Your task to perform on an android device: toggle airplane mode Image 0: 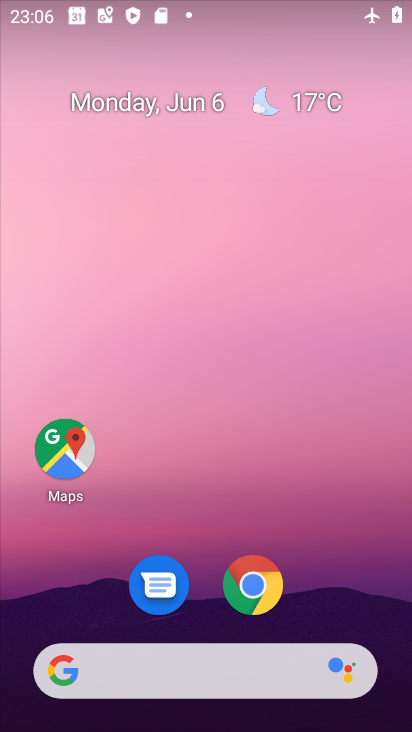
Step 0: drag from (274, 444) to (294, 0)
Your task to perform on an android device: toggle airplane mode Image 1: 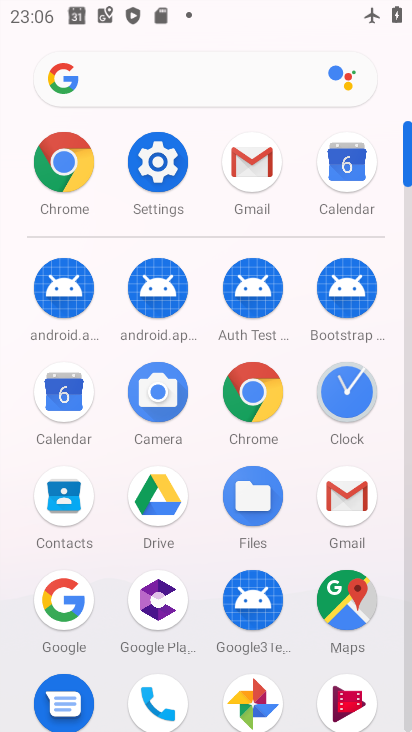
Step 1: click (170, 149)
Your task to perform on an android device: toggle airplane mode Image 2: 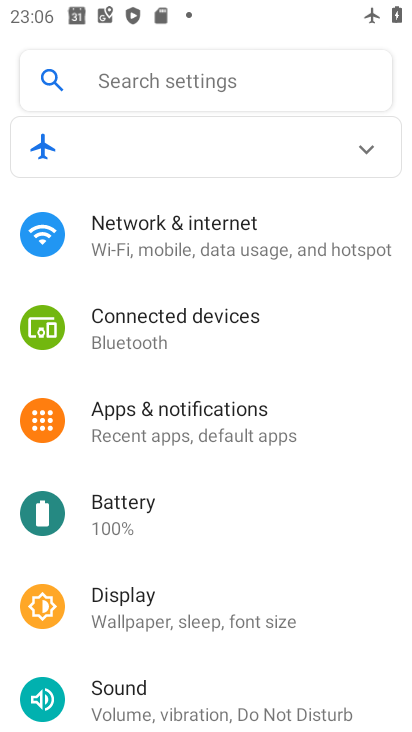
Step 2: click (218, 230)
Your task to perform on an android device: toggle airplane mode Image 3: 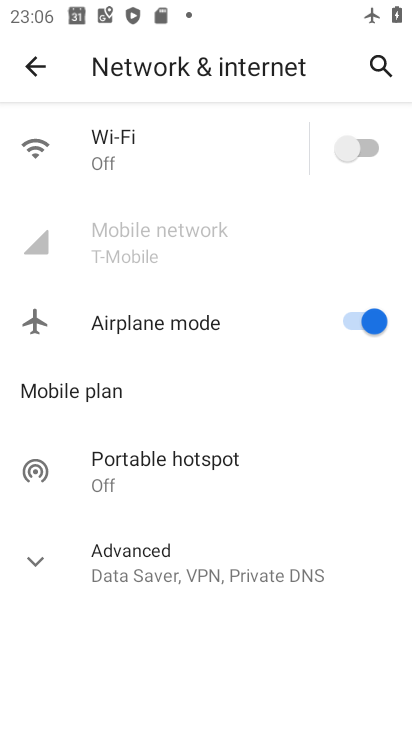
Step 3: click (359, 317)
Your task to perform on an android device: toggle airplane mode Image 4: 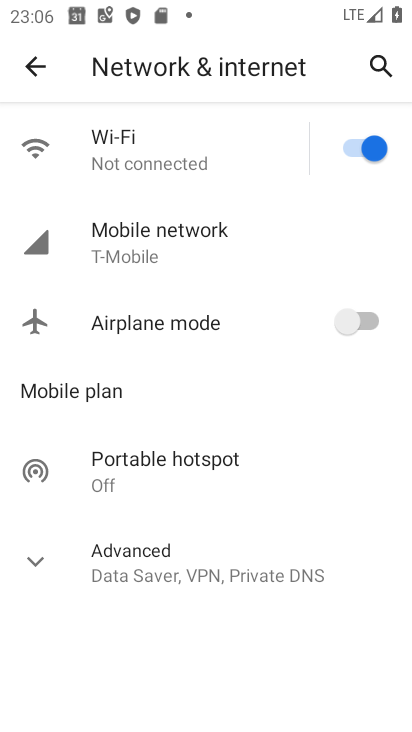
Step 4: task complete